Your task to perform on an android device: toggle wifi Image 0: 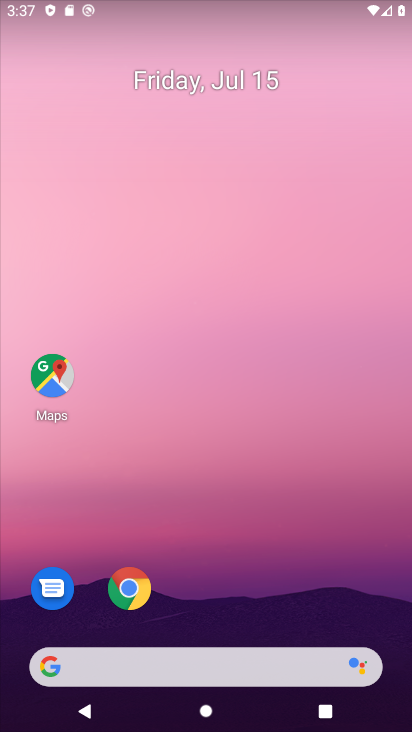
Step 0: drag from (216, 626) to (254, 201)
Your task to perform on an android device: toggle wifi Image 1: 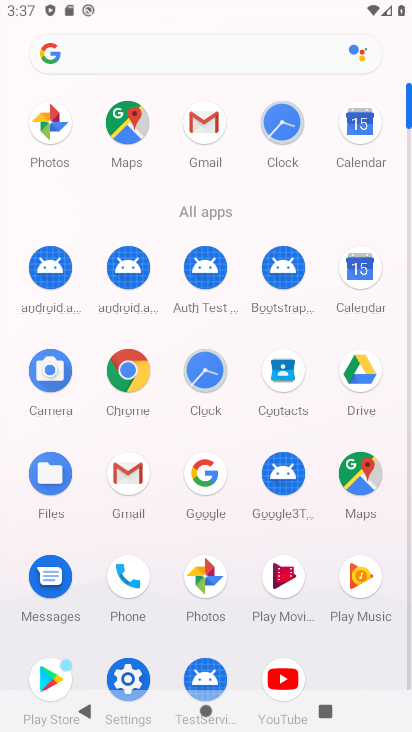
Step 1: click (127, 669)
Your task to perform on an android device: toggle wifi Image 2: 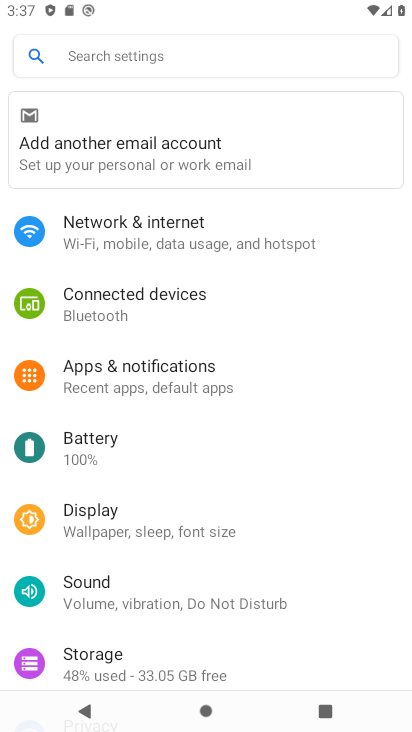
Step 2: click (157, 234)
Your task to perform on an android device: toggle wifi Image 3: 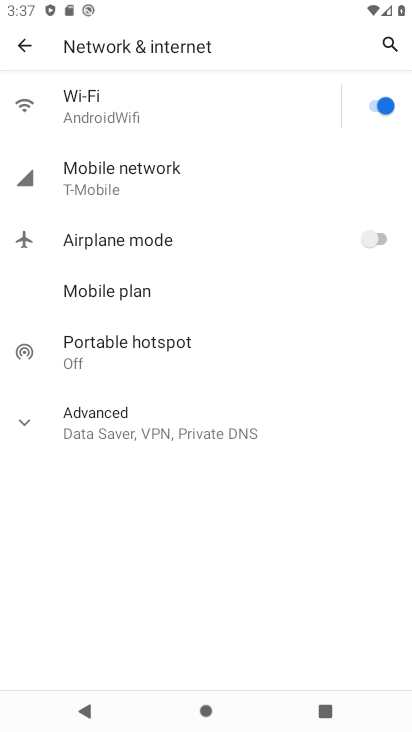
Step 3: click (377, 108)
Your task to perform on an android device: toggle wifi Image 4: 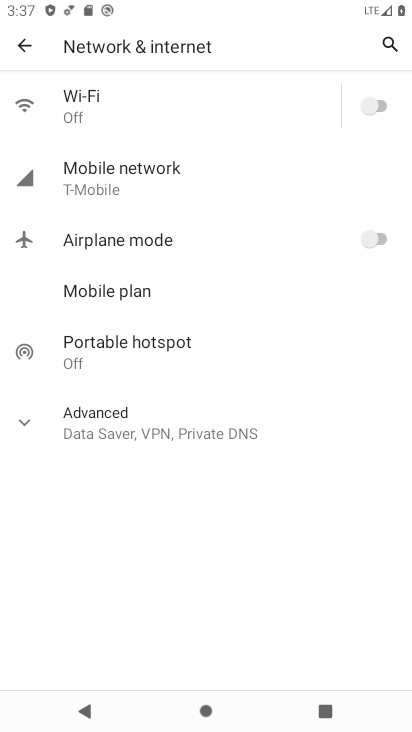
Step 4: task complete